Your task to perform on an android device: Go to Yahoo.com Image 0: 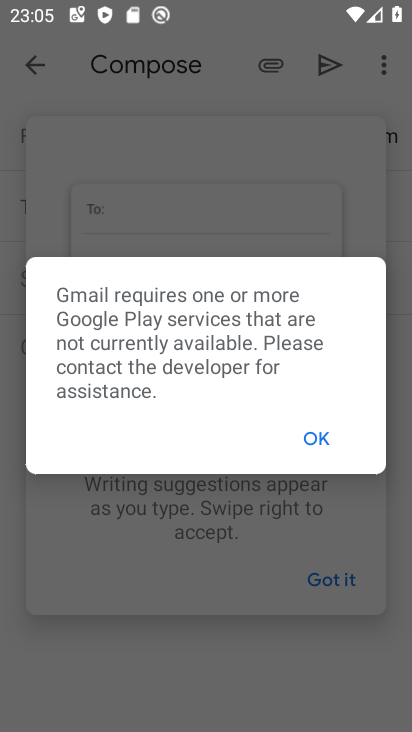
Step 0: press home button
Your task to perform on an android device: Go to Yahoo.com Image 1: 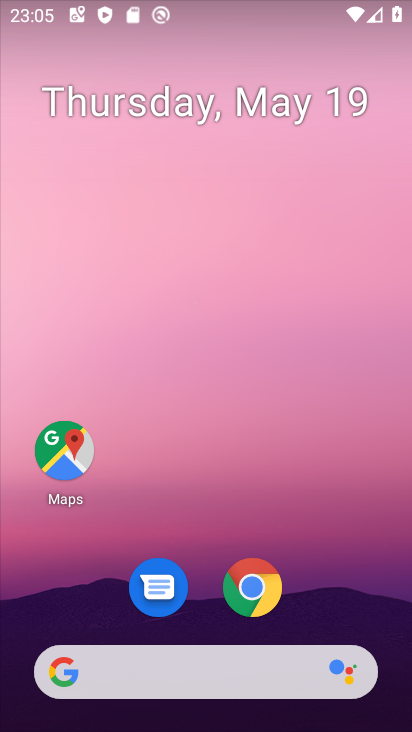
Step 1: drag from (209, 679) to (203, 243)
Your task to perform on an android device: Go to Yahoo.com Image 2: 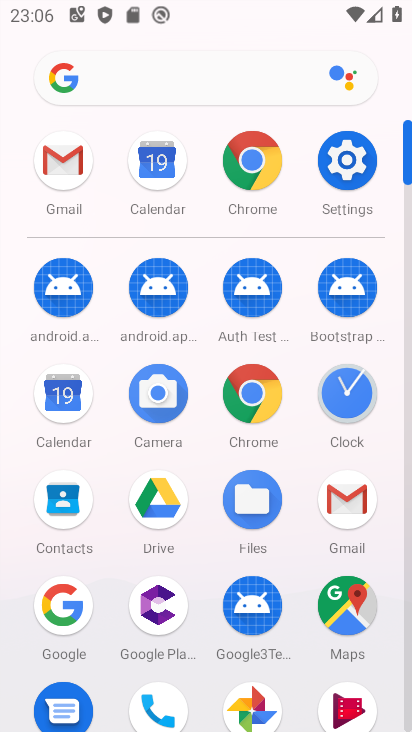
Step 2: click (263, 154)
Your task to perform on an android device: Go to Yahoo.com Image 3: 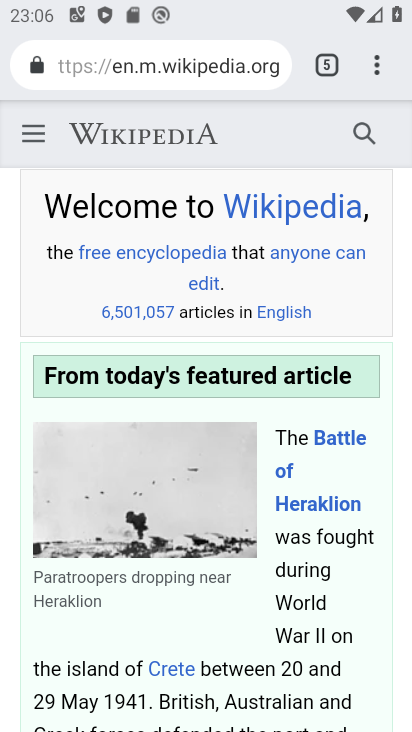
Step 3: click (178, 68)
Your task to perform on an android device: Go to Yahoo.com Image 4: 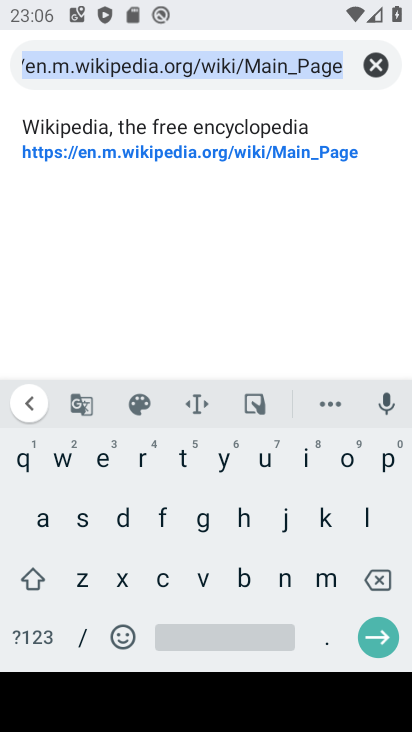
Step 4: click (220, 462)
Your task to perform on an android device: Go to Yahoo.com Image 5: 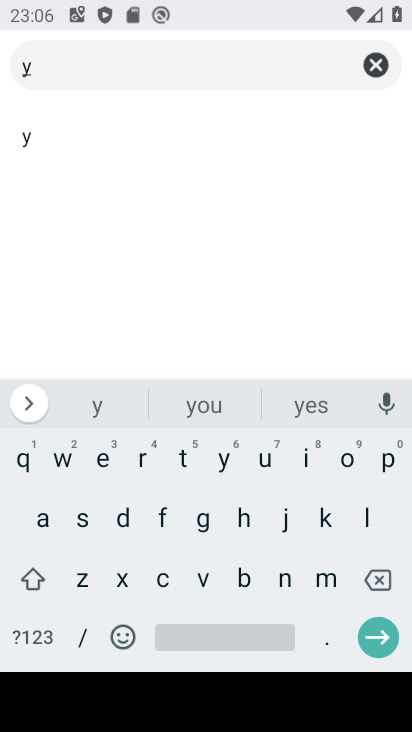
Step 5: click (44, 523)
Your task to perform on an android device: Go to Yahoo.com Image 6: 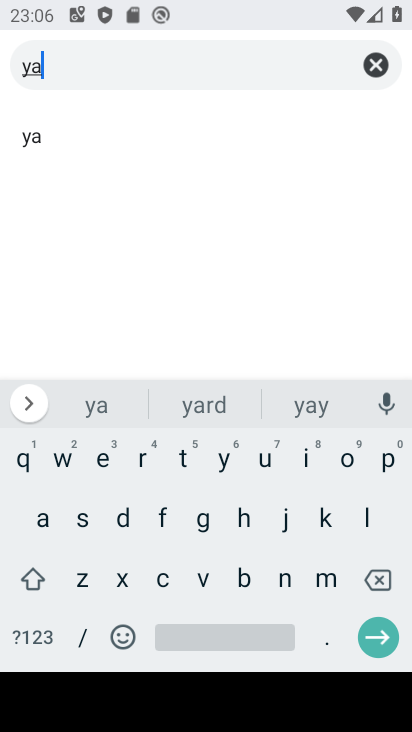
Step 6: click (242, 523)
Your task to perform on an android device: Go to Yahoo.com Image 7: 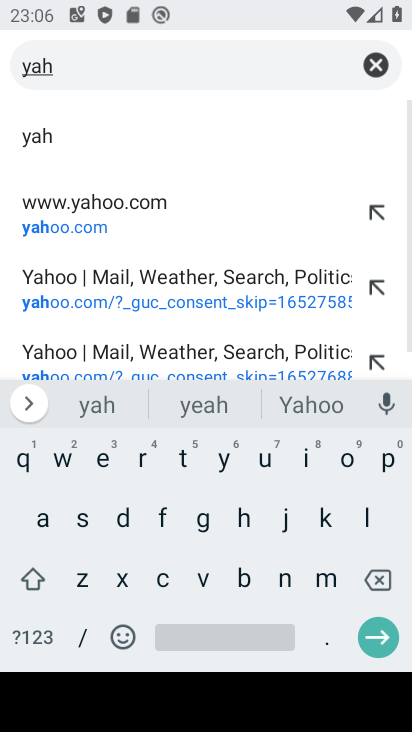
Step 7: click (133, 209)
Your task to perform on an android device: Go to Yahoo.com Image 8: 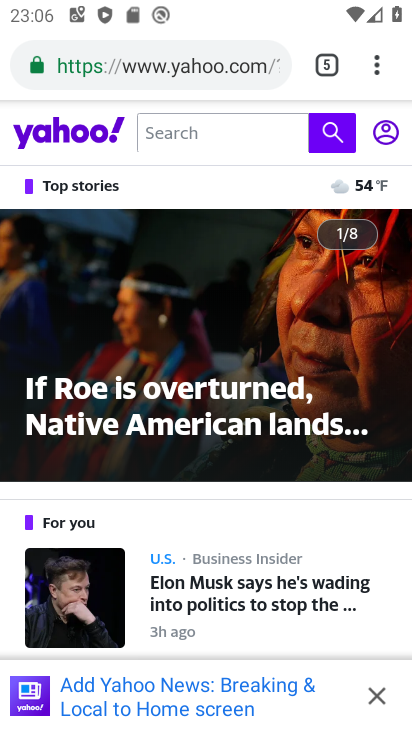
Step 8: task complete